Your task to perform on an android device: delete browsing data in the chrome app Image 0: 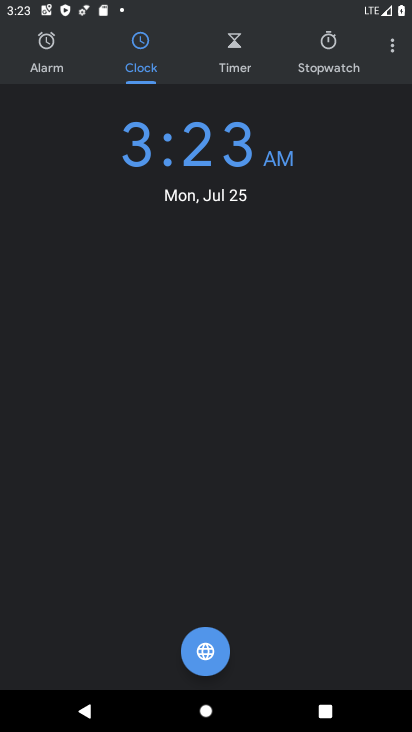
Step 0: press home button
Your task to perform on an android device: delete browsing data in the chrome app Image 1: 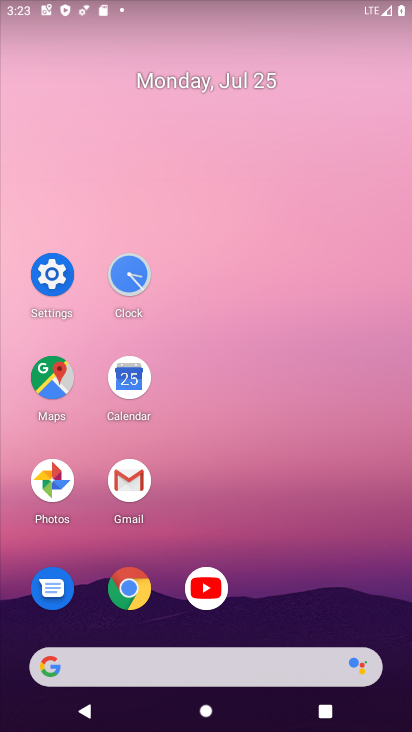
Step 1: click (124, 589)
Your task to perform on an android device: delete browsing data in the chrome app Image 2: 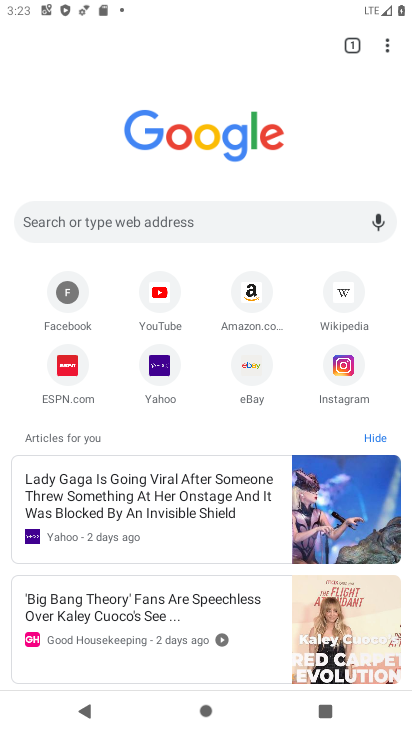
Step 2: click (388, 42)
Your task to perform on an android device: delete browsing data in the chrome app Image 3: 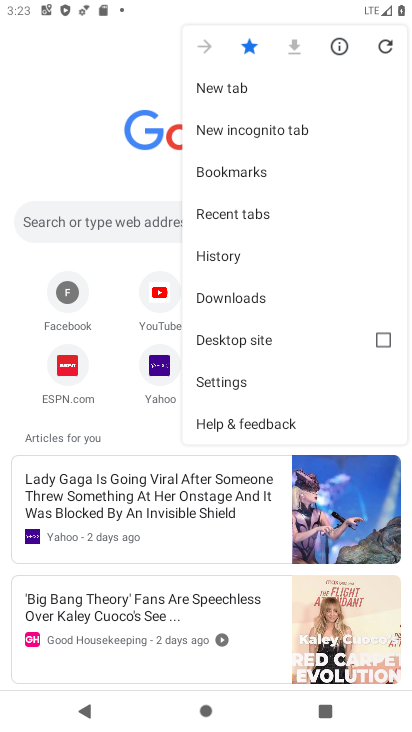
Step 3: click (208, 260)
Your task to perform on an android device: delete browsing data in the chrome app Image 4: 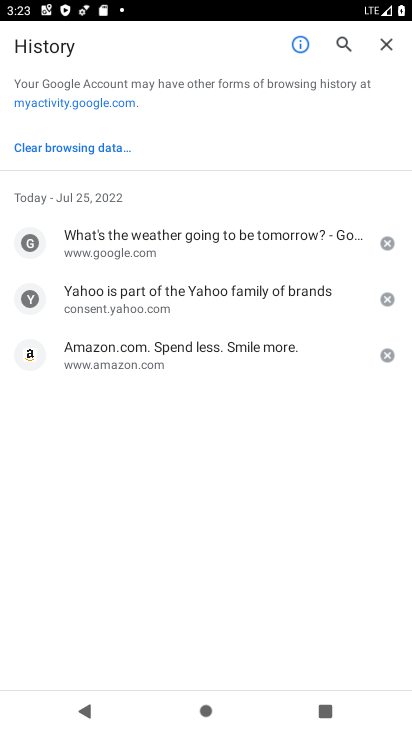
Step 4: click (75, 145)
Your task to perform on an android device: delete browsing data in the chrome app Image 5: 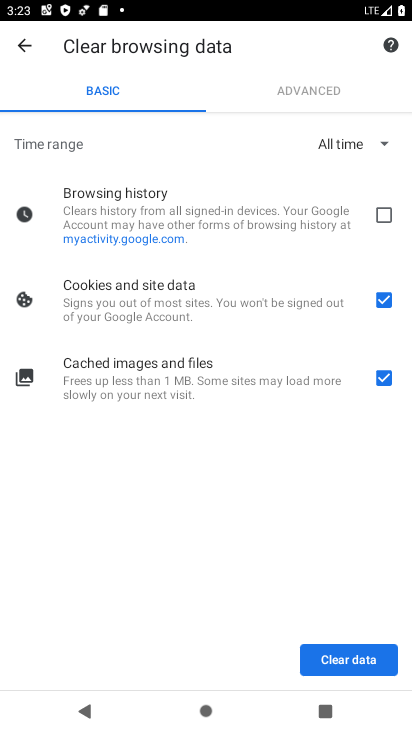
Step 5: click (382, 208)
Your task to perform on an android device: delete browsing data in the chrome app Image 6: 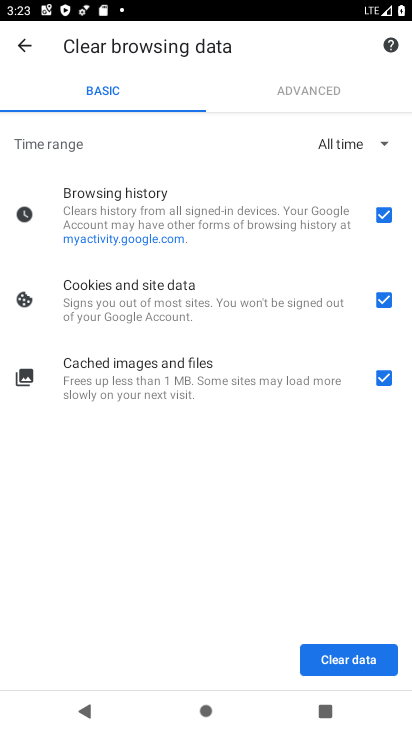
Step 6: click (347, 654)
Your task to perform on an android device: delete browsing data in the chrome app Image 7: 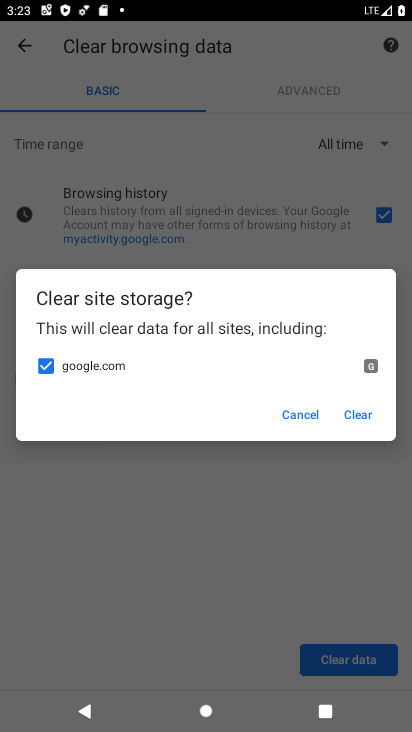
Step 7: click (353, 414)
Your task to perform on an android device: delete browsing data in the chrome app Image 8: 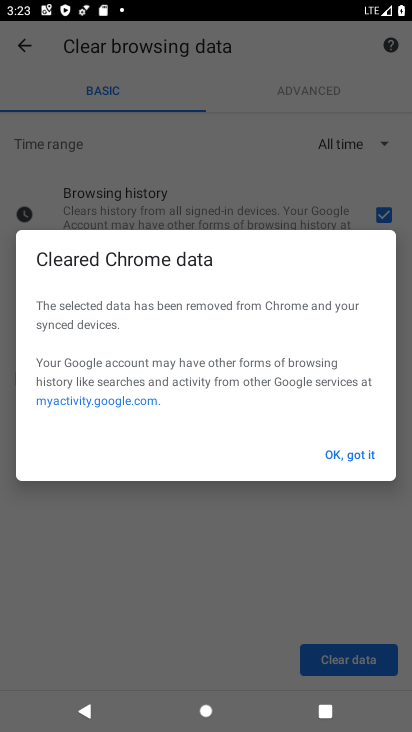
Step 8: click (341, 451)
Your task to perform on an android device: delete browsing data in the chrome app Image 9: 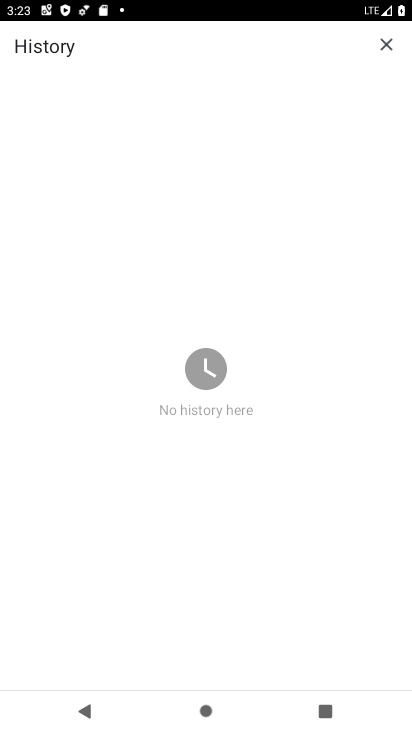
Step 9: task complete